Your task to perform on an android device: Play the last video I watched on Youtube Image 0: 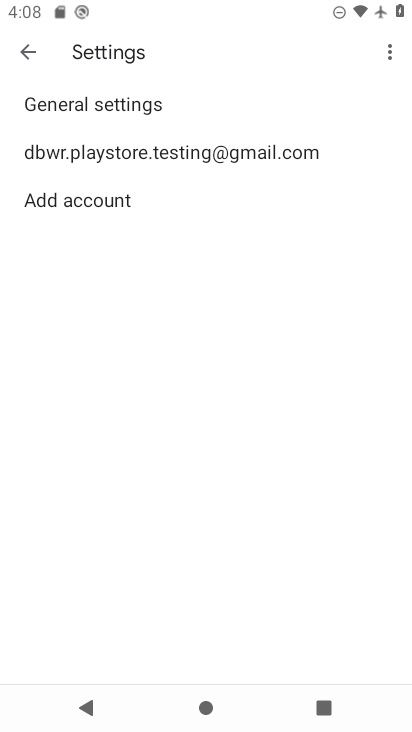
Step 0: press home button
Your task to perform on an android device: Play the last video I watched on Youtube Image 1: 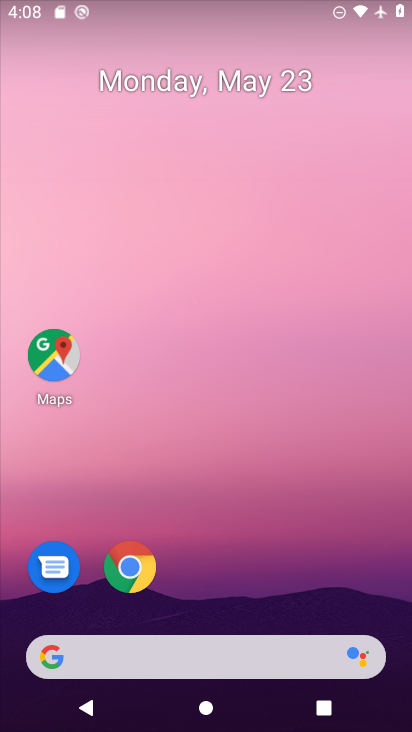
Step 1: drag from (403, 656) to (314, 221)
Your task to perform on an android device: Play the last video I watched on Youtube Image 2: 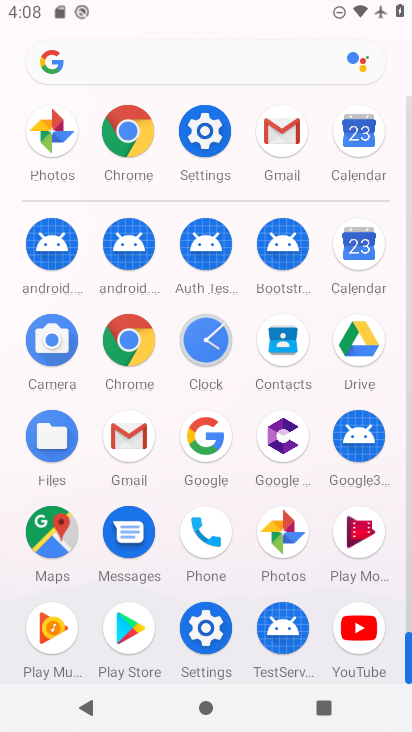
Step 2: click (356, 633)
Your task to perform on an android device: Play the last video I watched on Youtube Image 3: 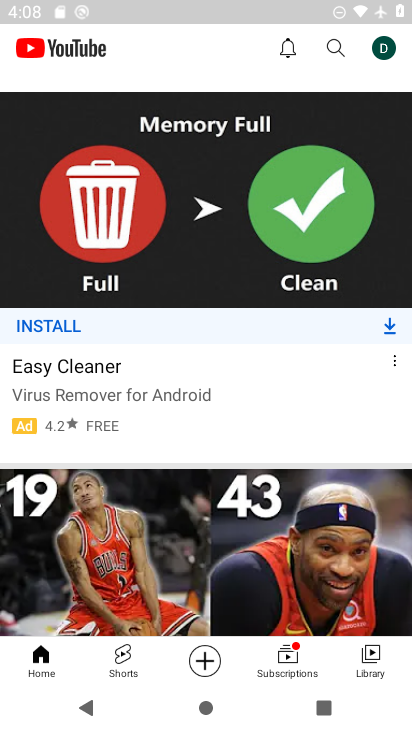
Step 3: click (368, 651)
Your task to perform on an android device: Play the last video I watched on Youtube Image 4: 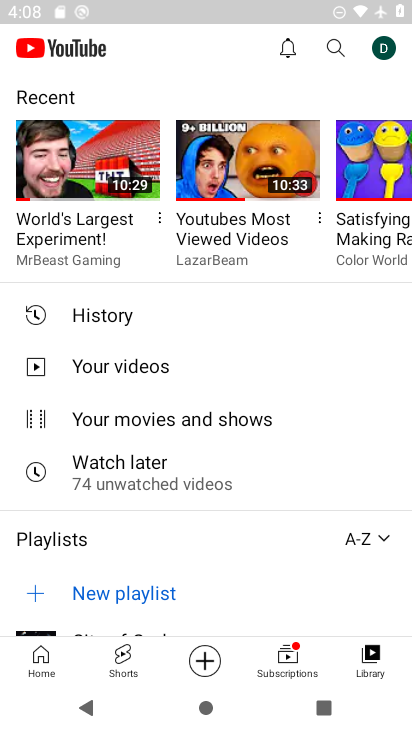
Step 4: click (61, 161)
Your task to perform on an android device: Play the last video I watched on Youtube Image 5: 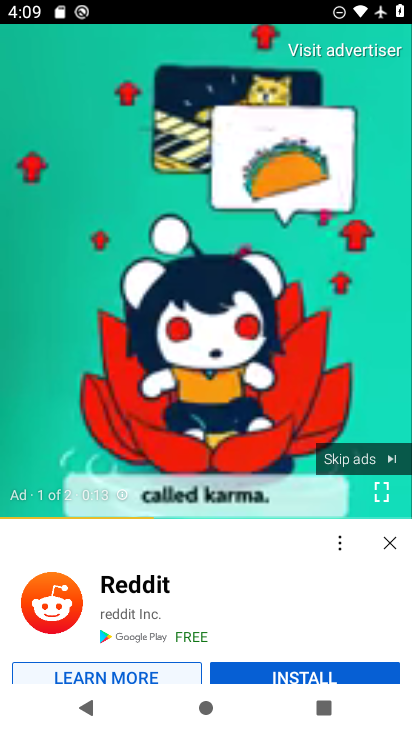
Step 5: click (381, 456)
Your task to perform on an android device: Play the last video I watched on Youtube Image 6: 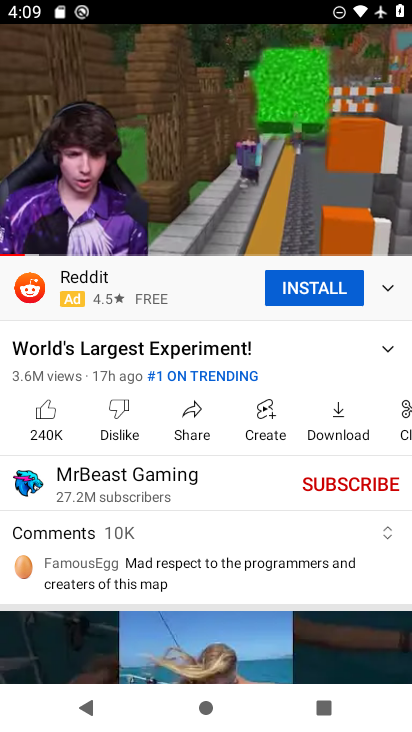
Step 6: click (201, 153)
Your task to perform on an android device: Play the last video I watched on Youtube Image 7: 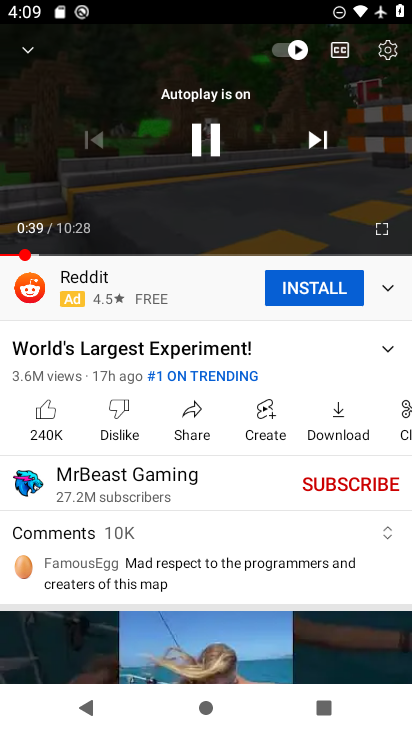
Step 7: click (201, 153)
Your task to perform on an android device: Play the last video I watched on Youtube Image 8: 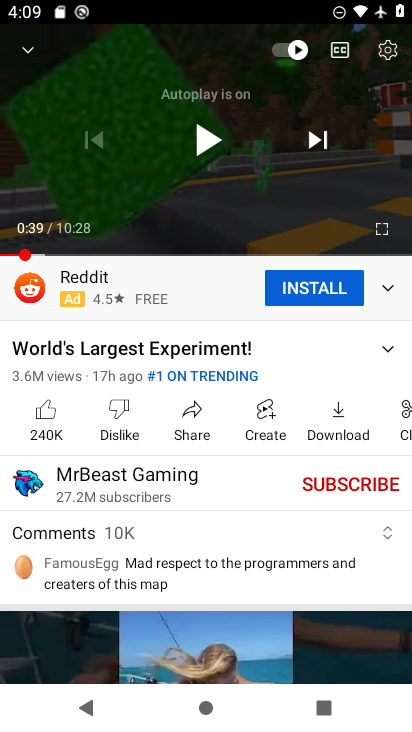
Step 8: task complete